Your task to perform on an android device: allow cookies in the chrome app Image 0: 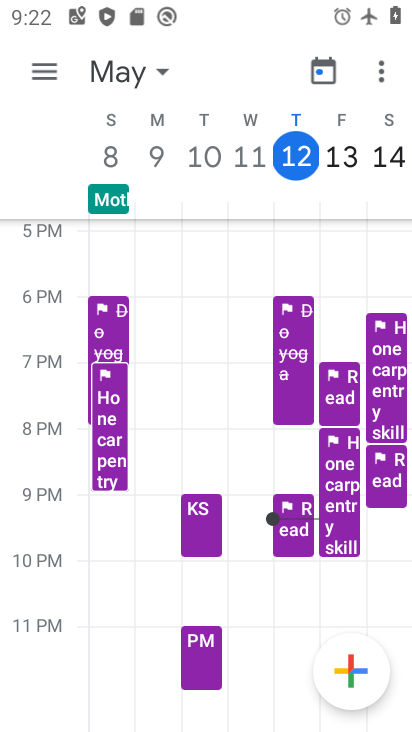
Step 0: press home button
Your task to perform on an android device: allow cookies in the chrome app Image 1: 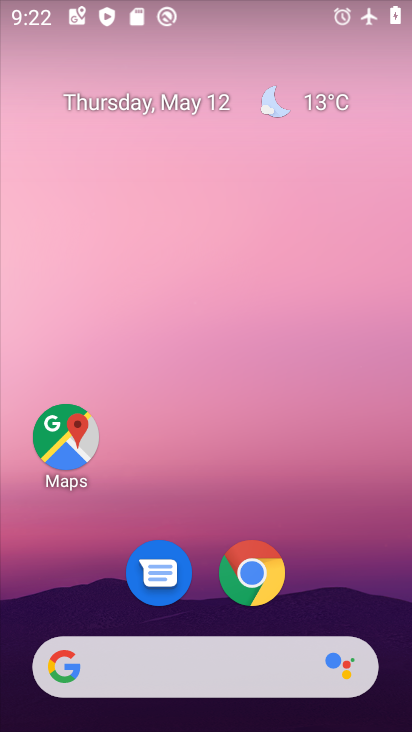
Step 1: click (259, 568)
Your task to perform on an android device: allow cookies in the chrome app Image 2: 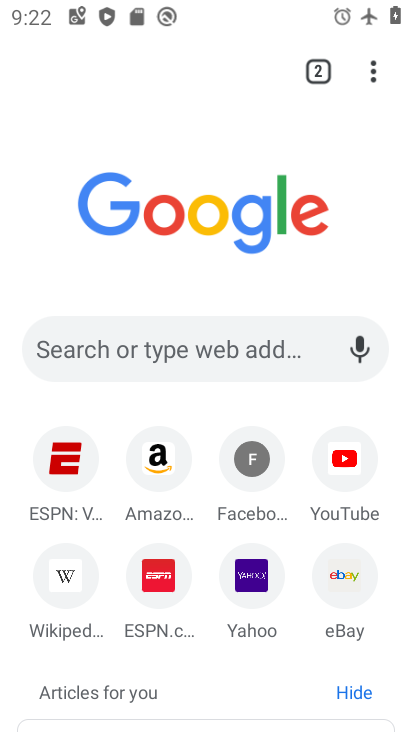
Step 2: click (372, 64)
Your task to perform on an android device: allow cookies in the chrome app Image 3: 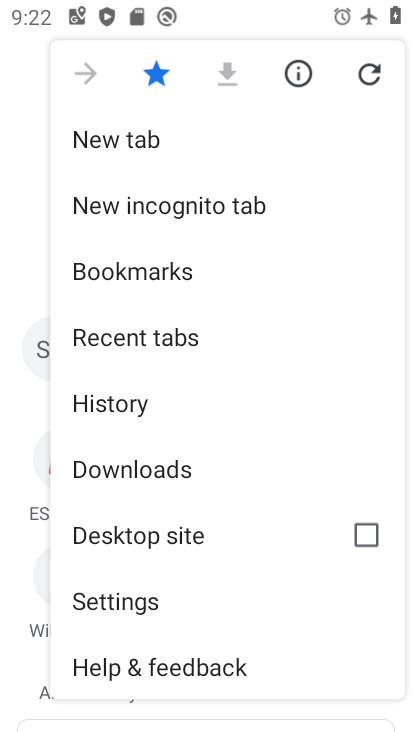
Step 3: click (125, 598)
Your task to perform on an android device: allow cookies in the chrome app Image 4: 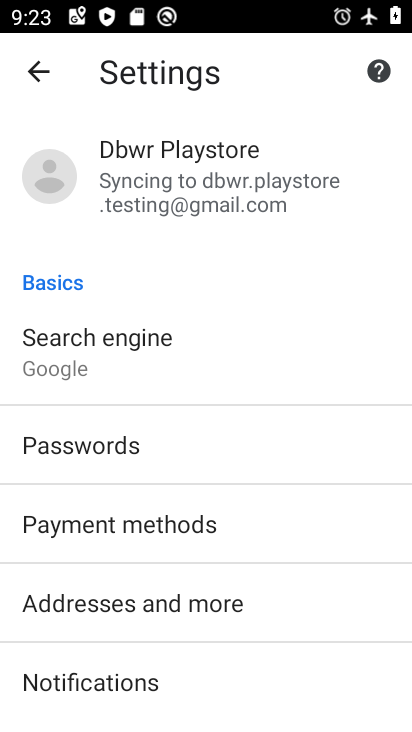
Step 4: drag from (244, 658) to (223, 408)
Your task to perform on an android device: allow cookies in the chrome app Image 5: 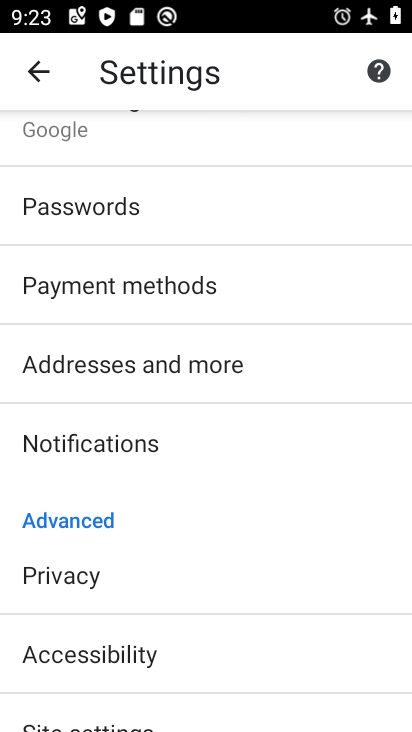
Step 5: drag from (295, 694) to (287, 362)
Your task to perform on an android device: allow cookies in the chrome app Image 6: 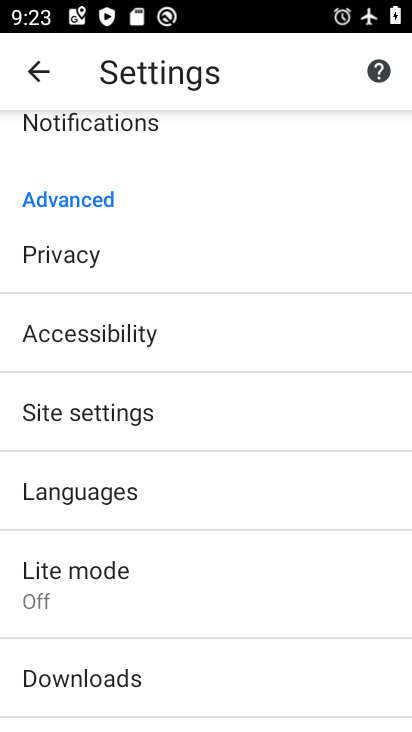
Step 6: drag from (245, 618) to (219, 428)
Your task to perform on an android device: allow cookies in the chrome app Image 7: 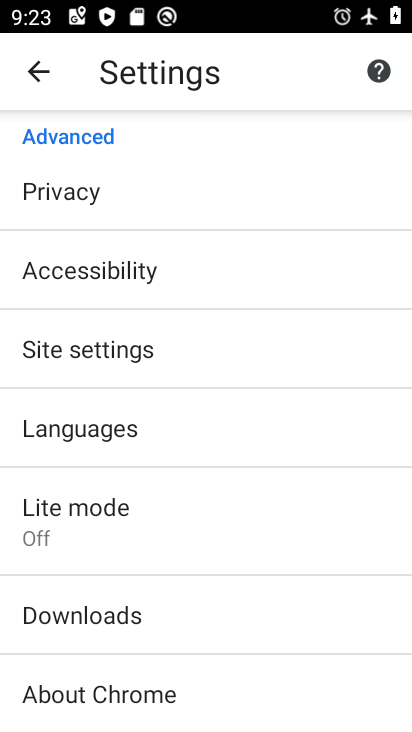
Step 7: click (85, 357)
Your task to perform on an android device: allow cookies in the chrome app Image 8: 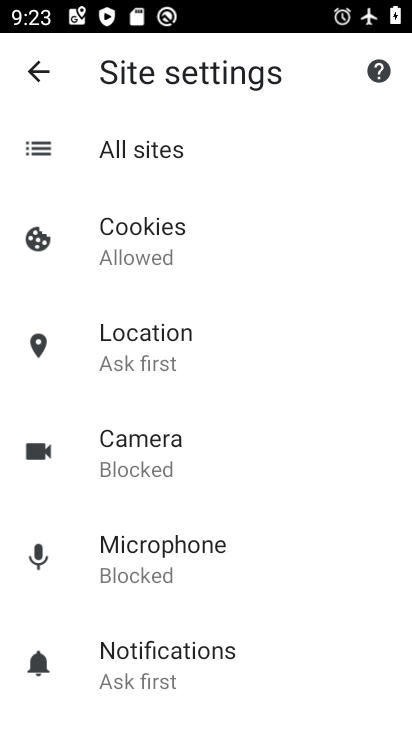
Step 8: drag from (293, 633) to (271, 385)
Your task to perform on an android device: allow cookies in the chrome app Image 9: 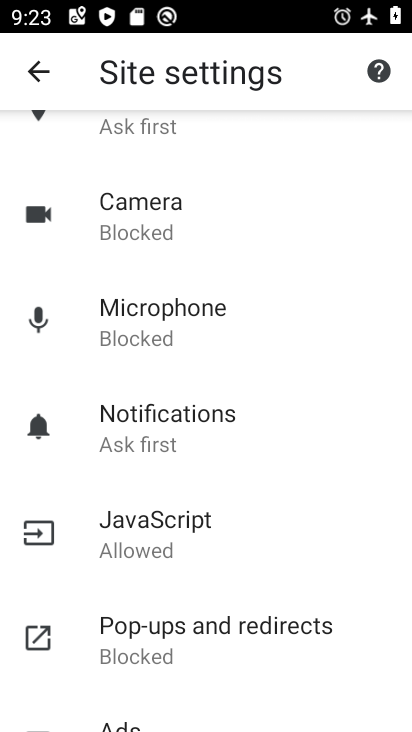
Step 9: drag from (324, 180) to (352, 510)
Your task to perform on an android device: allow cookies in the chrome app Image 10: 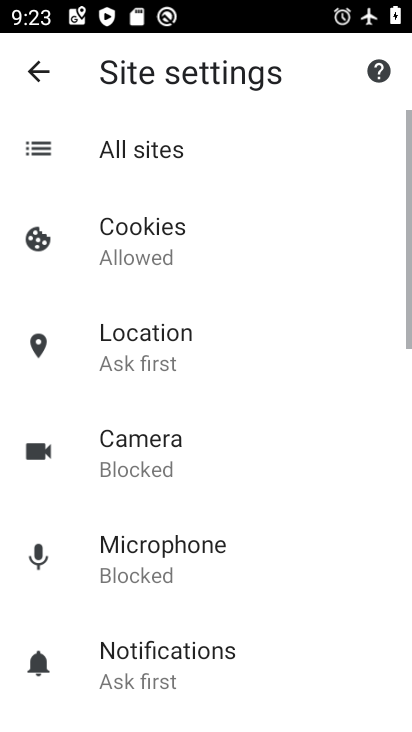
Step 10: click (141, 237)
Your task to perform on an android device: allow cookies in the chrome app Image 11: 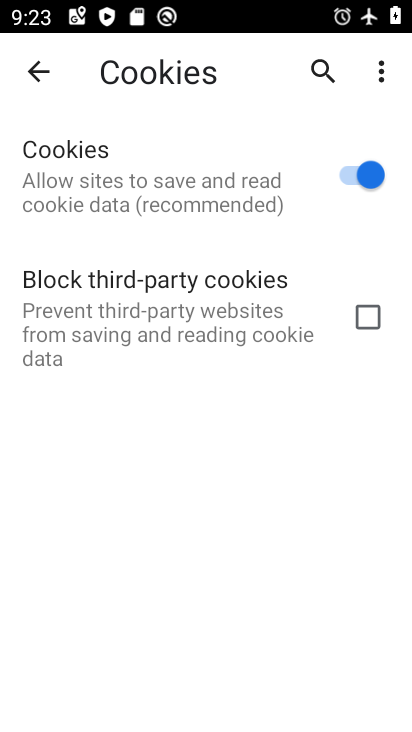
Step 11: task complete